Your task to perform on an android device: delete browsing data in the chrome app Image 0: 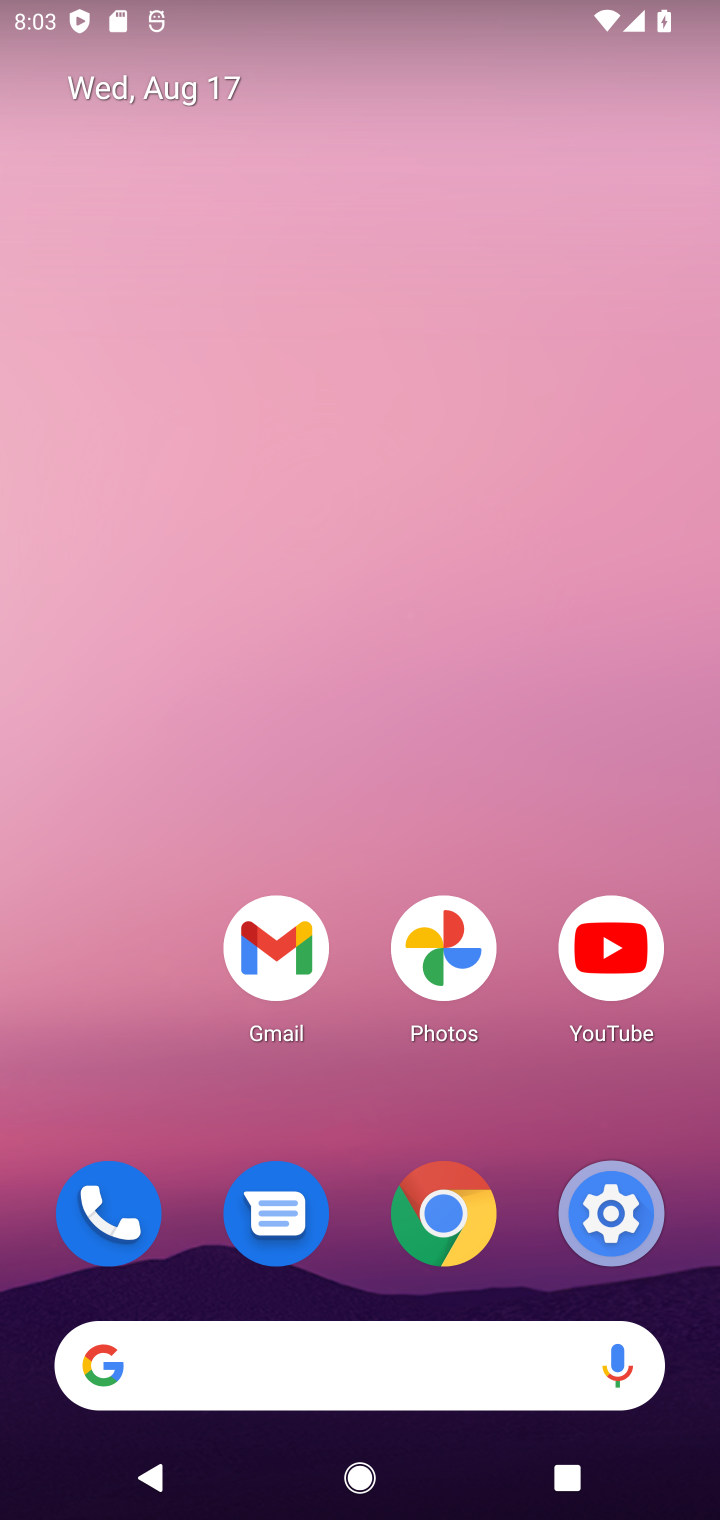
Step 0: click (452, 1203)
Your task to perform on an android device: delete browsing data in the chrome app Image 1: 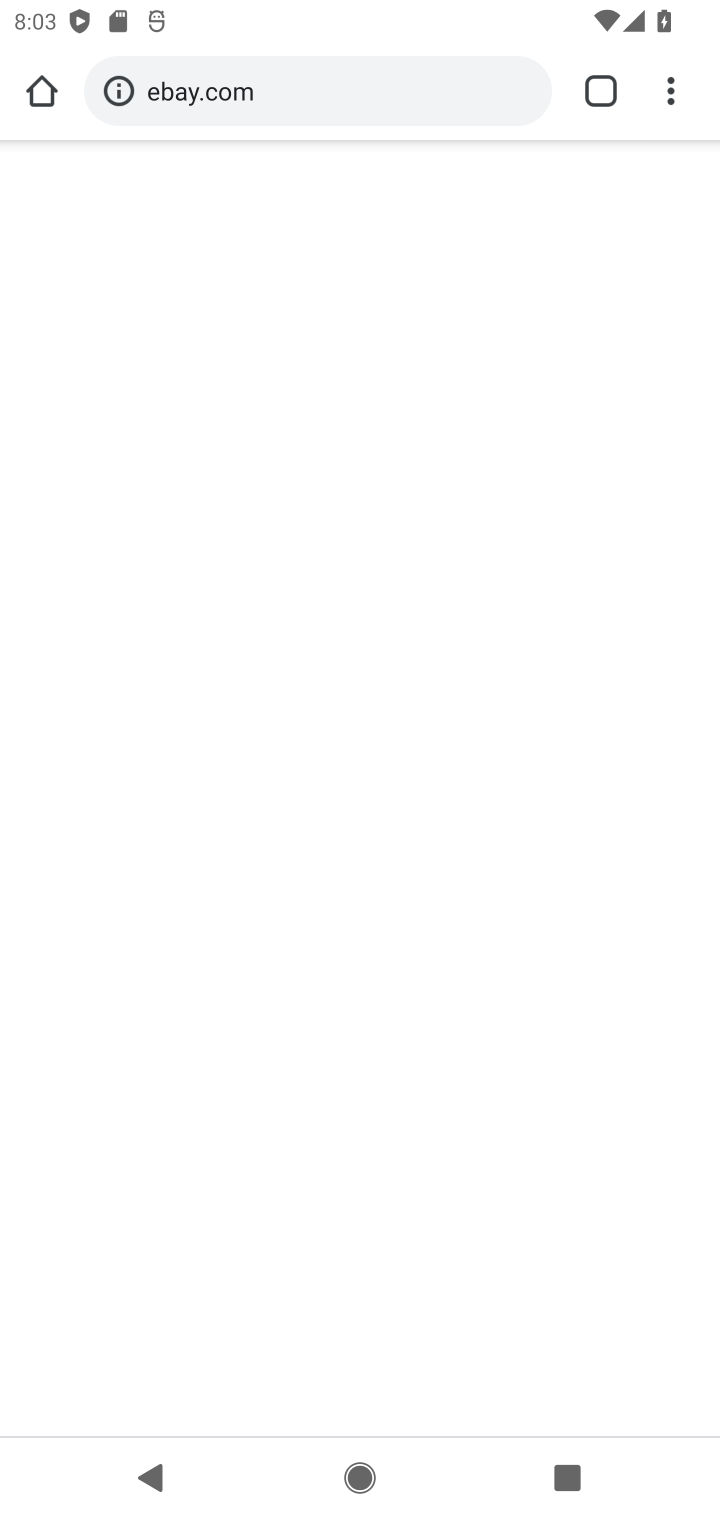
Step 1: click (687, 100)
Your task to perform on an android device: delete browsing data in the chrome app Image 2: 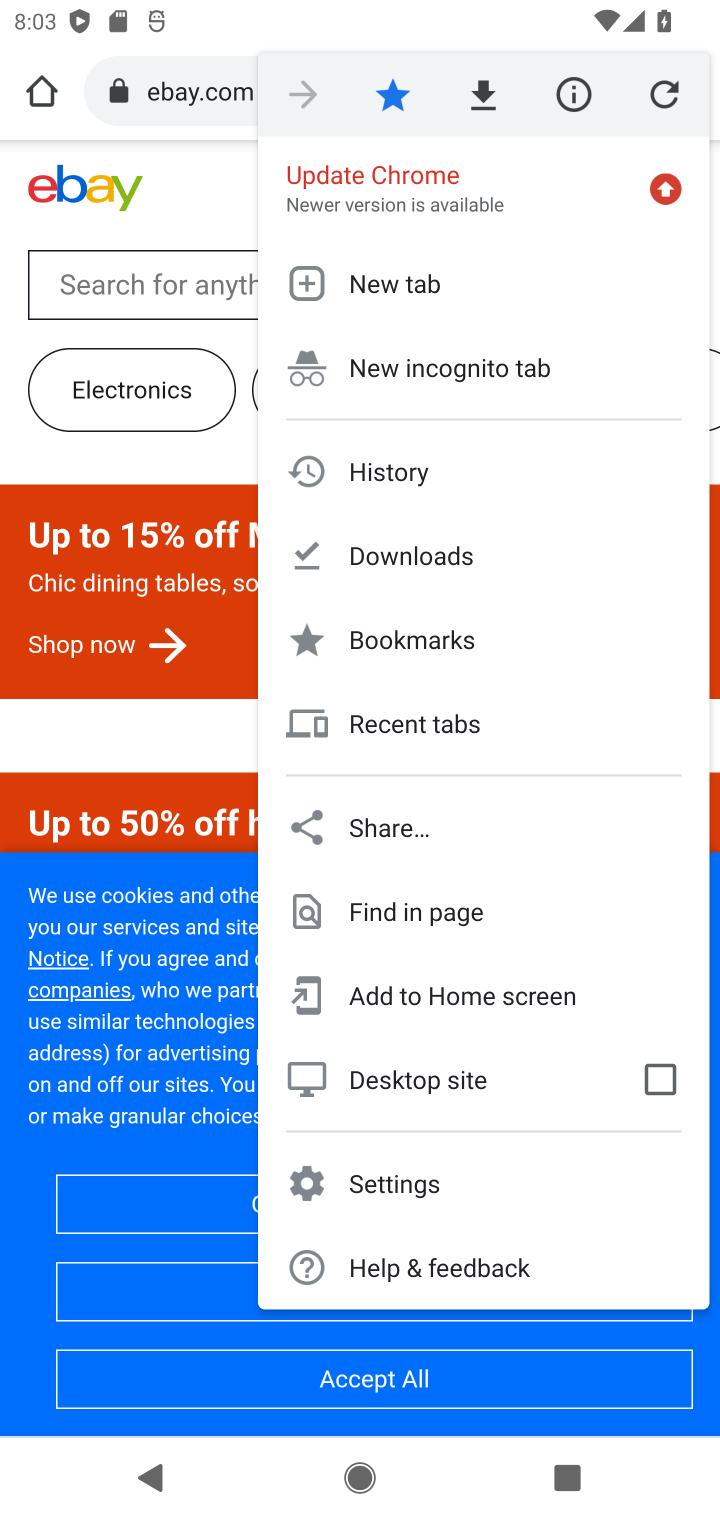
Step 2: click (406, 497)
Your task to perform on an android device: delete browsing data in the chrome app Image 3: 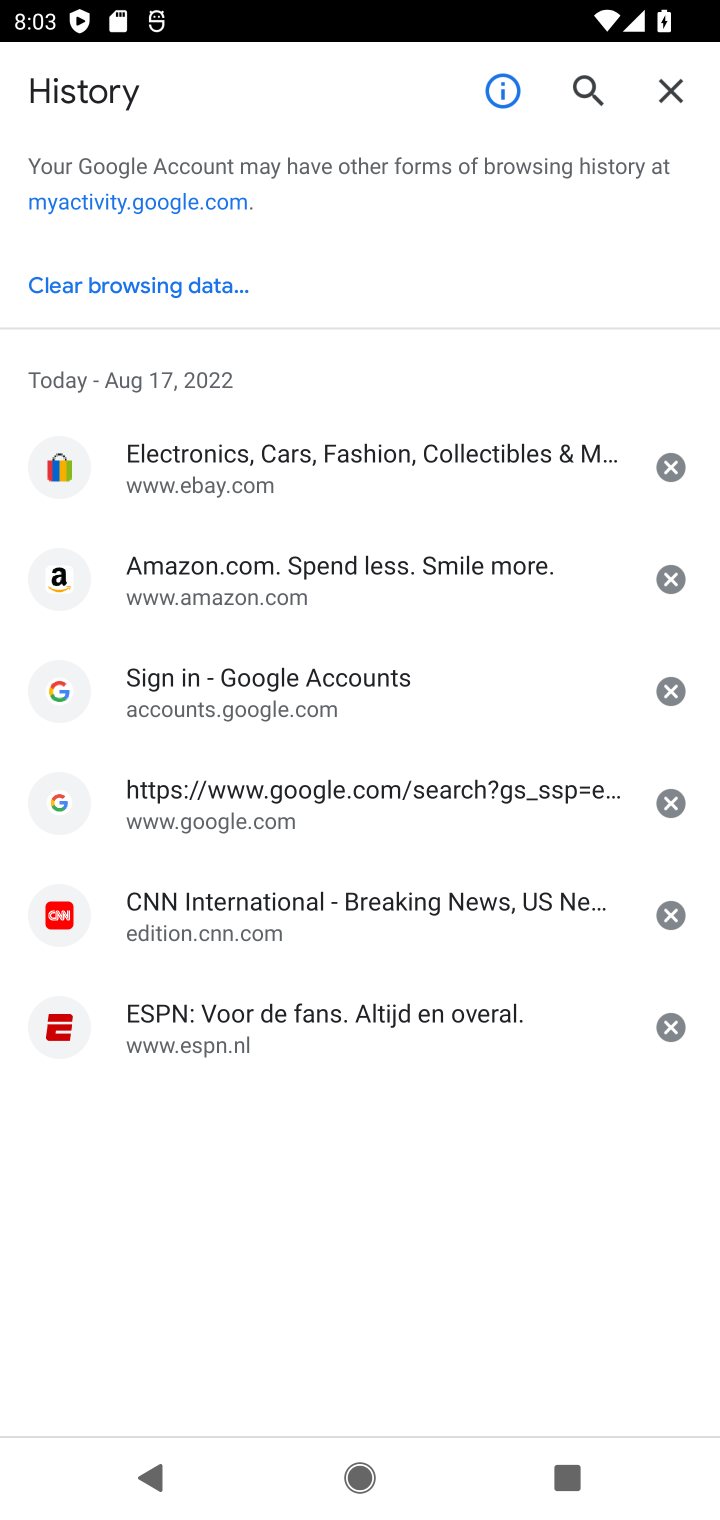
Step 3: click (169, 304)
Your task to perform on an android device: delete browsing data in the chrome app Image 4: 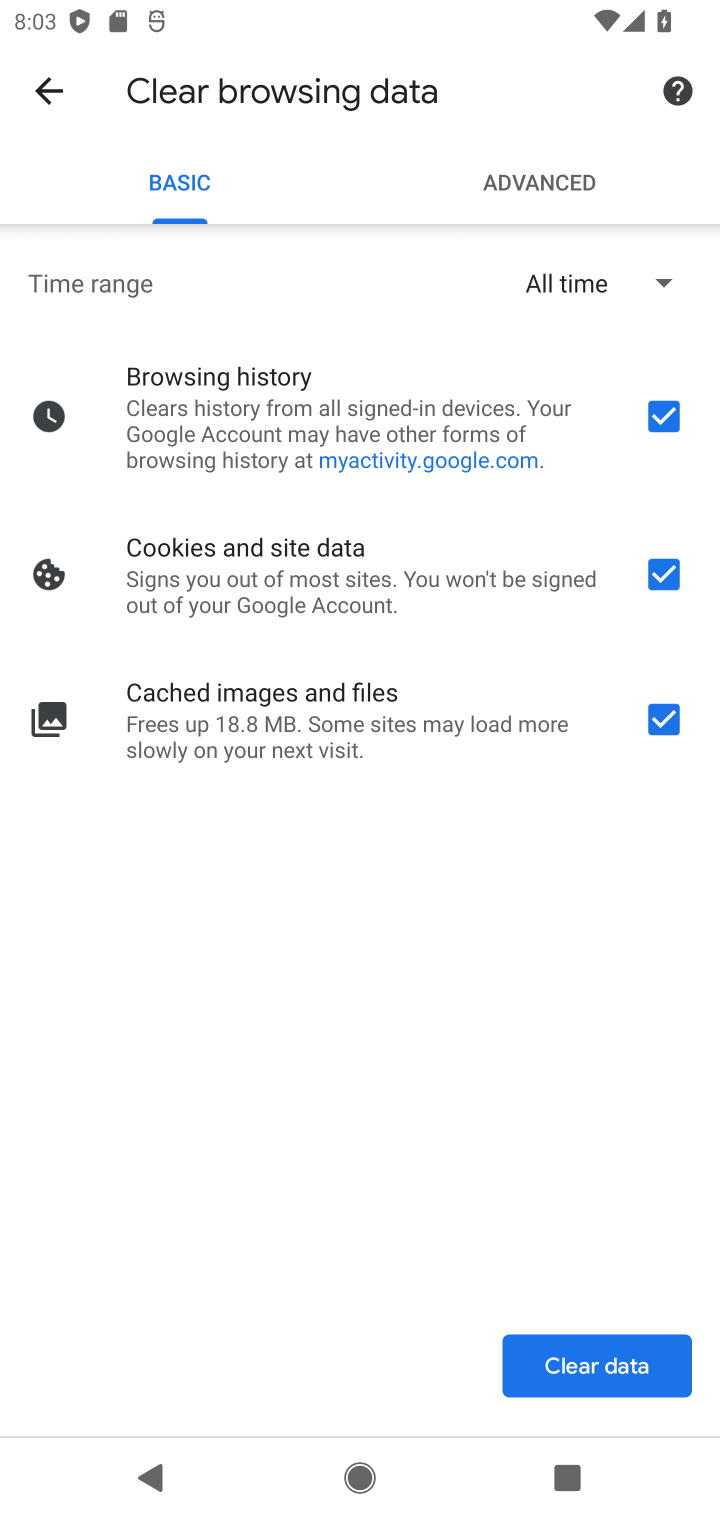
Step 4: click (603, 1378)
Your task to perform on an android device: delete browsing data in the chrome app Image 5: 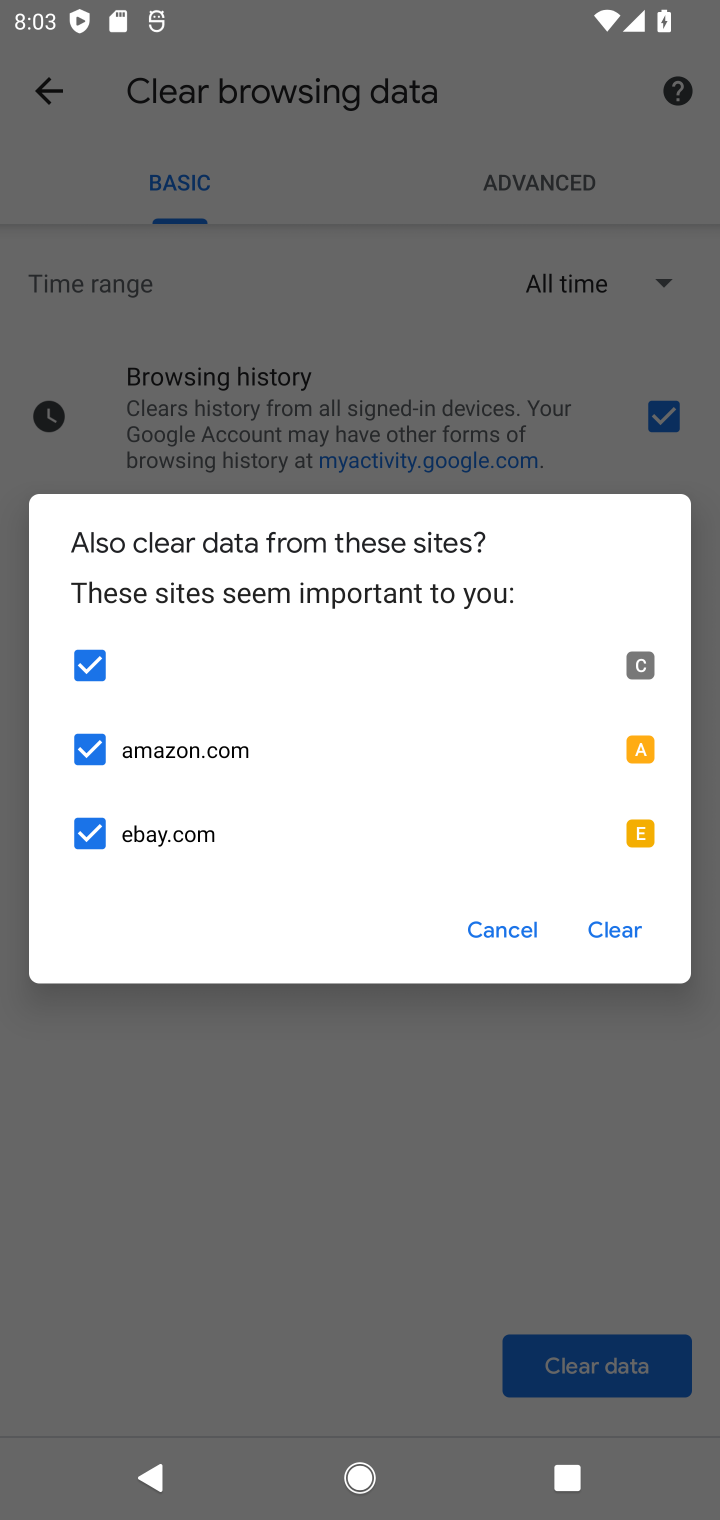
Step 5: click (647, 932)
Your task to perform on an android device: delete browsing data in the chrome app Image 6: 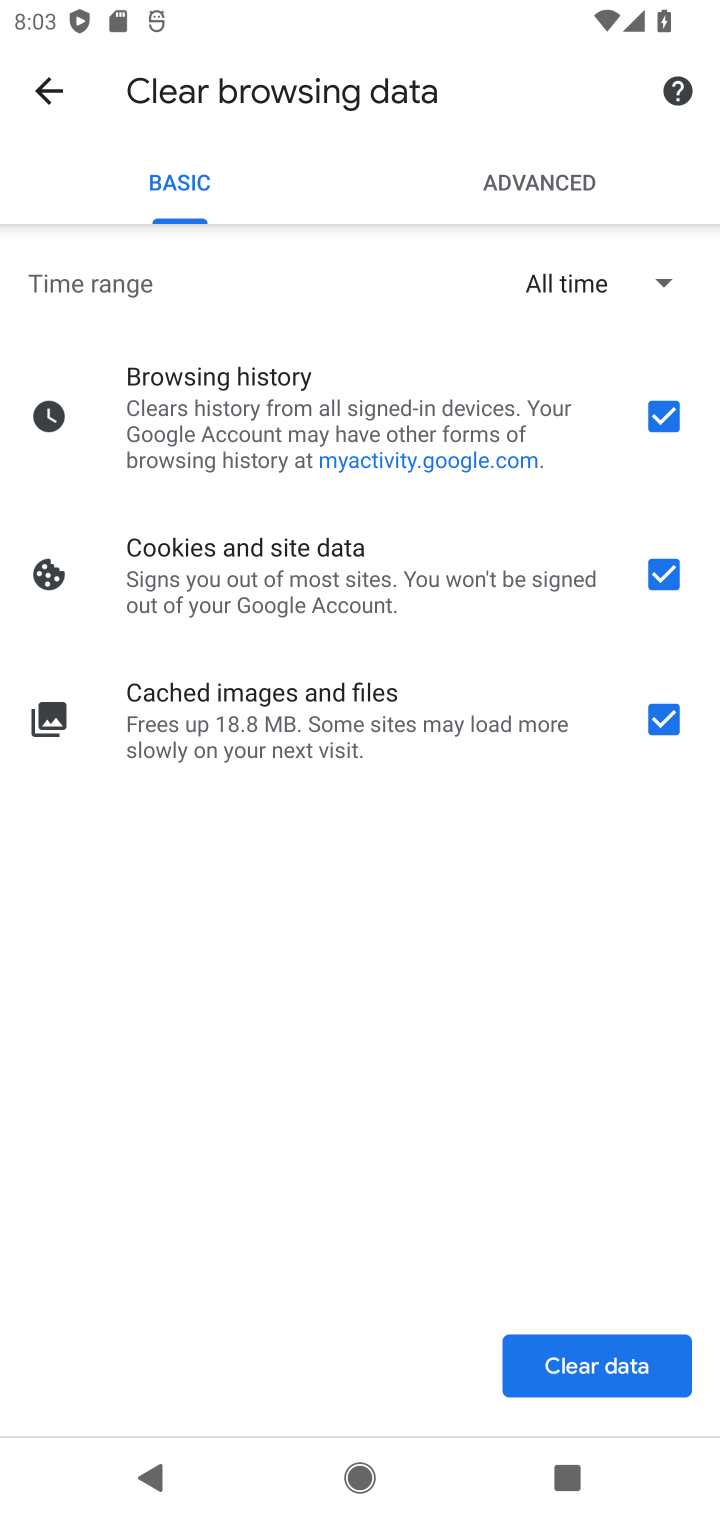
Step 6: task complete